Your task to perform on an android device: find which apps use the phone's location Image 0: 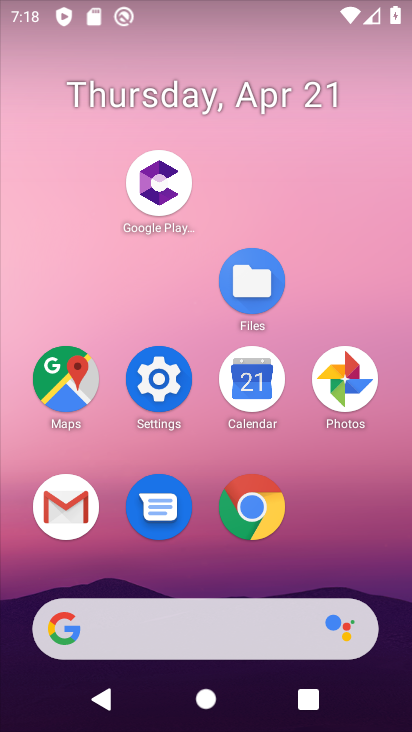
Step 0: click (149, 397)
Your task to perform on an android device: find which apps use the phone's location Image 1: 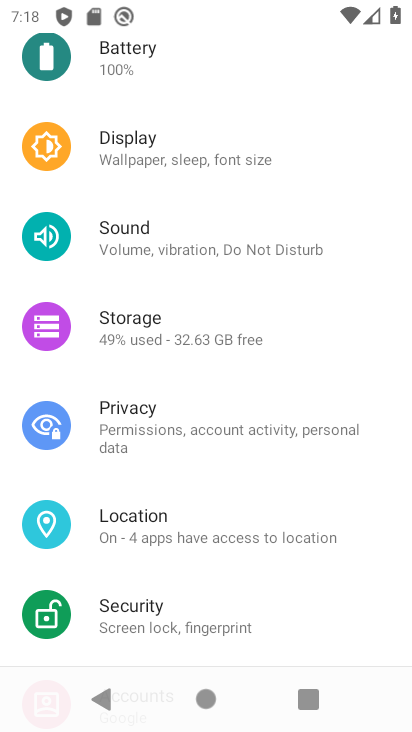
Step 1: click (132, 515)
Your task to perform on an android device: find which apps use the phone's location Image 2: 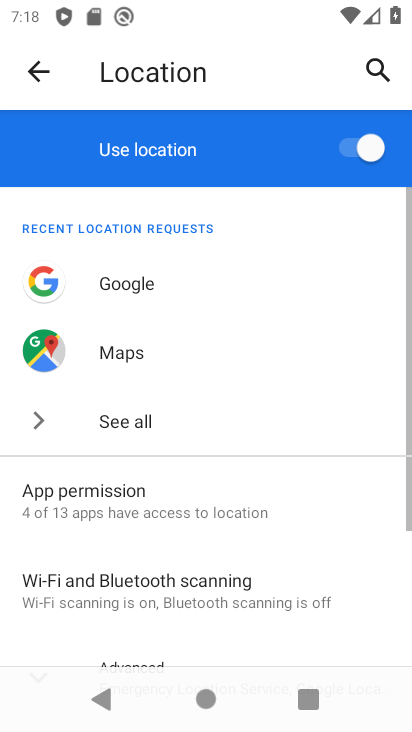
Step 2: click (42, 419)
Your task to perform on an android device: find which apps use the phone's location Image 3: 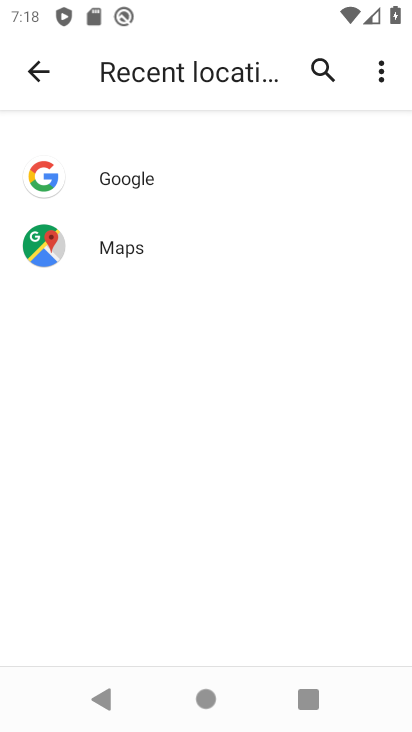
Step 3: task complete